Your task to perform on an android device: Open the calendar and show me this week's events? Image 0: 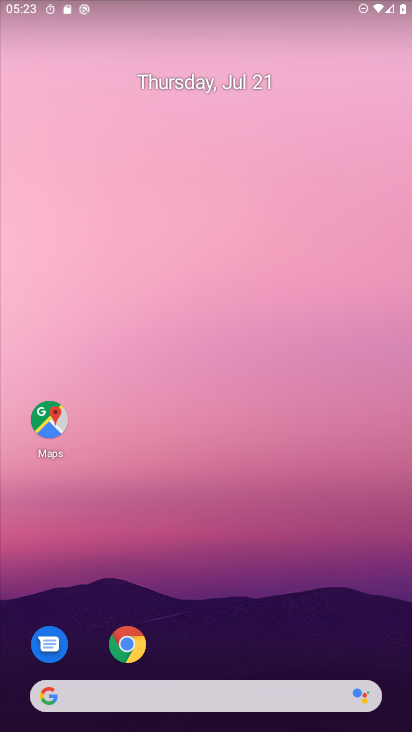
Step 0: drag from (227, 432) to (186, 32)
Your task to perform on an android device: Open the calendar and show me this week's events? Image 1: 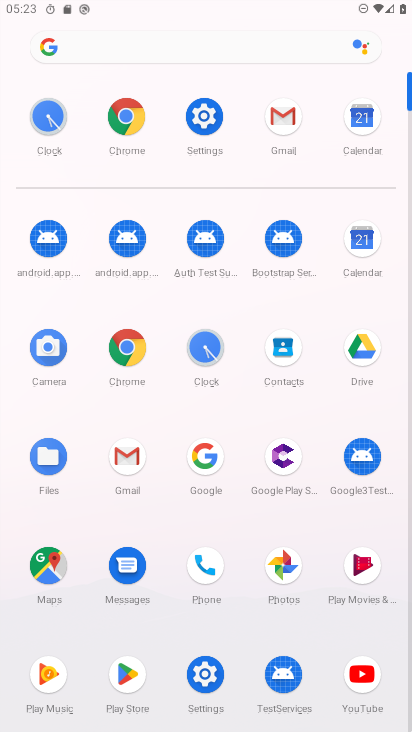
Step 1: click (365, 135)
Your task to perform on an android device: Open the calendar and show me this week's events? Image 2: 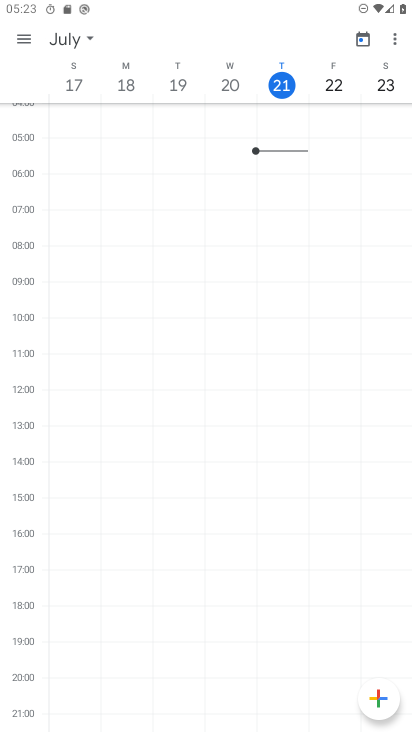
Step 2: task complete